Your task to perform on an android device: move a message to another label in the gmail app Image 0: 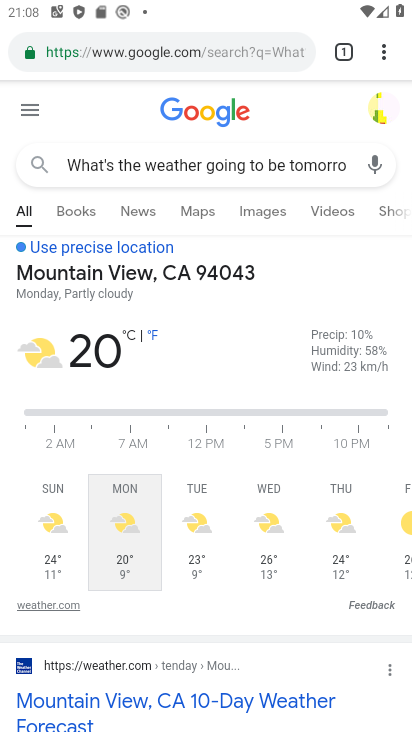
Step 0: press back button
Your task to perform on an android device: move a message to another label in the gmail app Image 1: 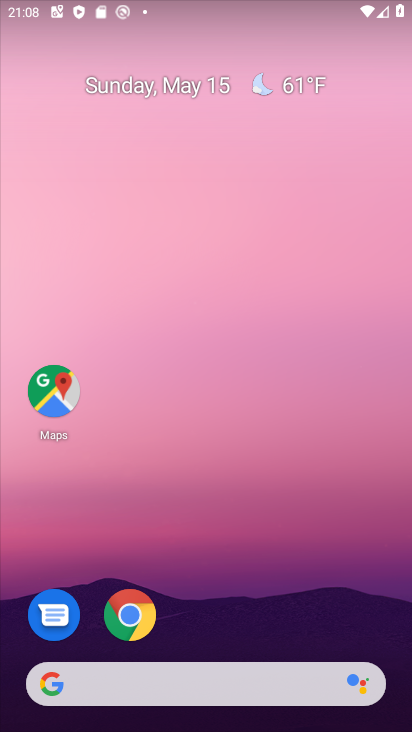
Step 1: drag from (276, 527) to (198, 144)
Your task to perform on an android device: move a message to another label in the gmail app Image 2: 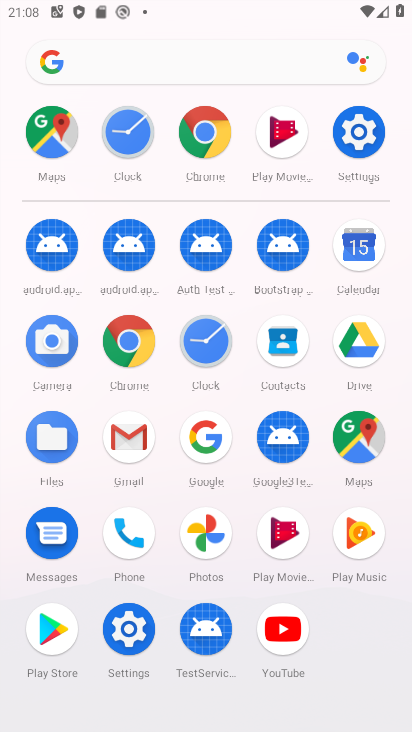
Step 2: click (128, 425)
Your task to perform on an android device: move a message to another label in the gmail app Image 3: 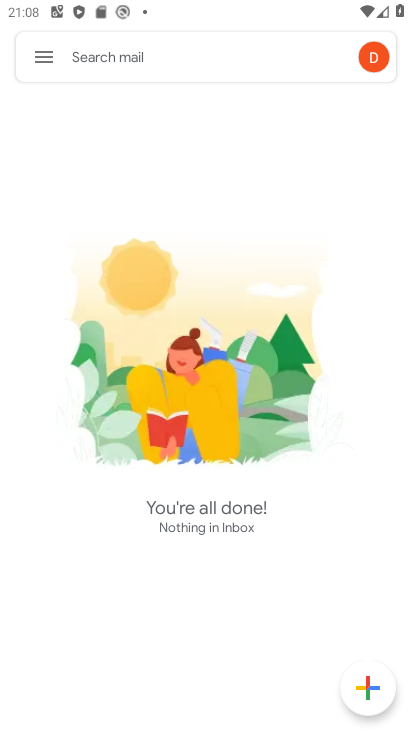
Step 3: click (39, 56)
Your task to perform on an android device: move a message to another label in the gmail app Image 4: 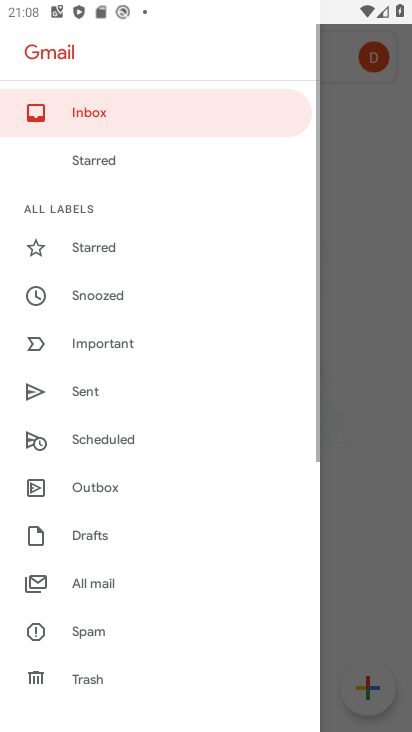
Step 4: drag from (187, 171) to (193, 515)
Your task to perform on an android device: move a message to another label in the gmail app Image 5: 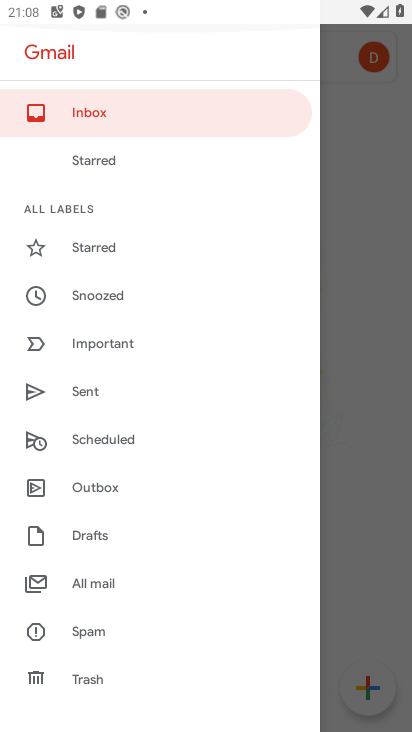
Step 5: click (118, 580)
Your task to perform on an android device: move a message to another label in the gmail app Image 6: 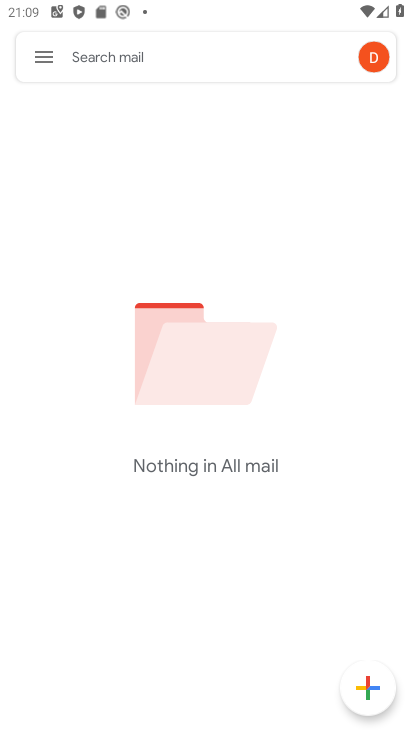
Step 6: click (28, 57)
Your task to perform on an android device: move a message to another label in the gmail app Image 7: 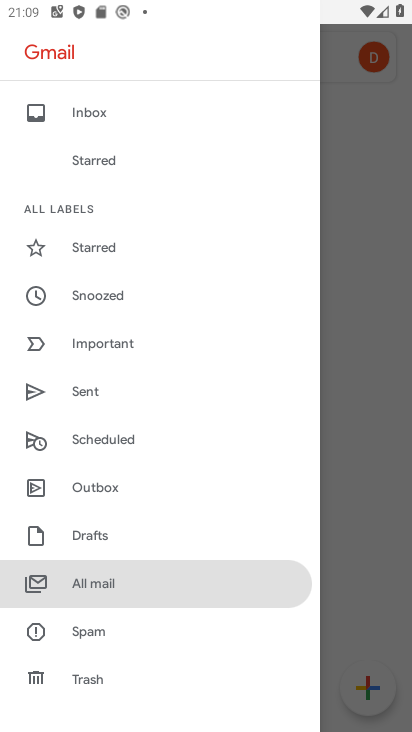
Step 7: click (168, 585)
Your task to perform on an android device: move a message to another label in the gmail app Image 8: 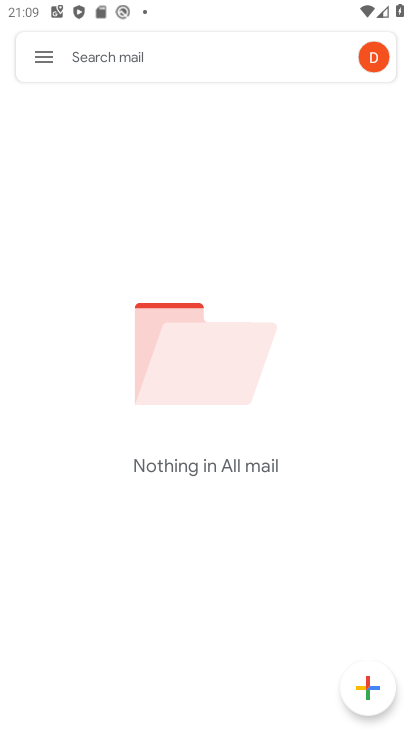
Step 8: task complete